Your task to perform on an android device: add a contact in the contacts app Image 0: 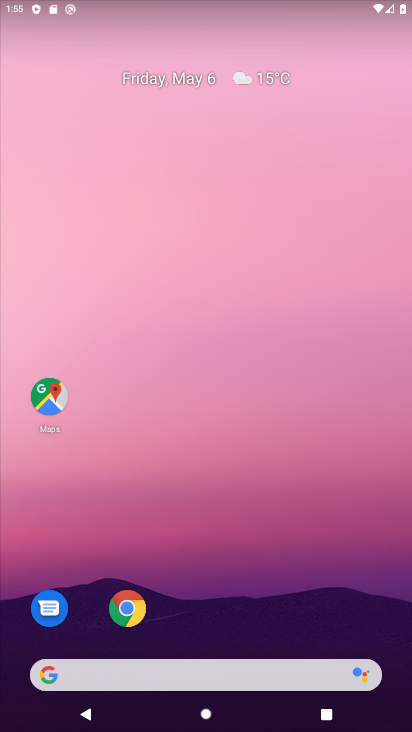
Step 0: drag from (247, 594) to (210, 101)
Your task to perform on an android device: add a contact in the contacts app Image 1: 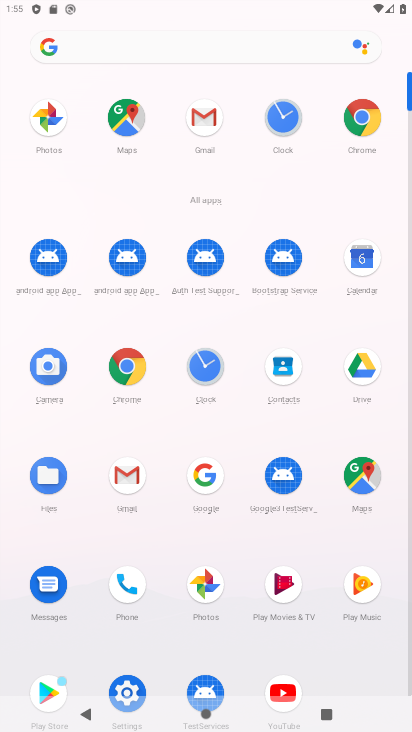
Step 1: click (283, 367)
Your task to perform on an android device: add a contact in the contacts app Image 2: 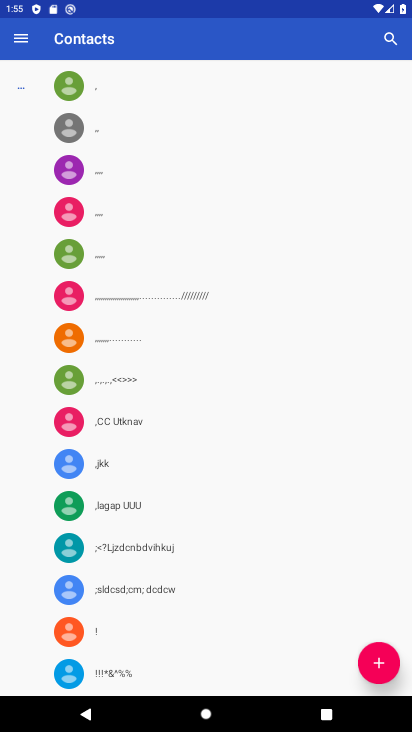
Step 2: click (381, 664)
Your task to perform on an android device: add a contact in the contacts app Image 3: 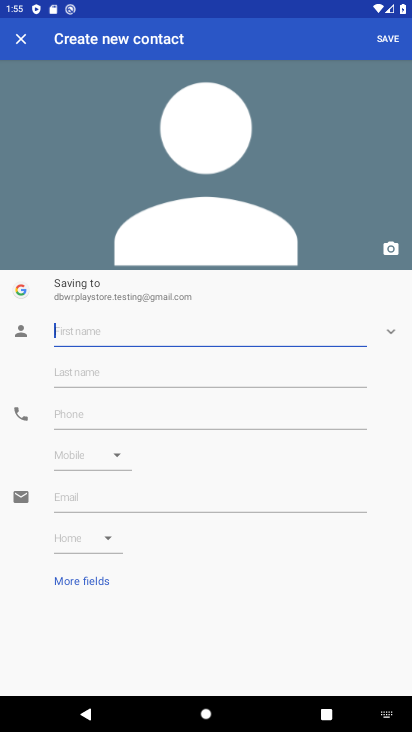
Step 3: click (168, 335)
Your task to perform on an android device: add a contact in the contacts app Image 4: 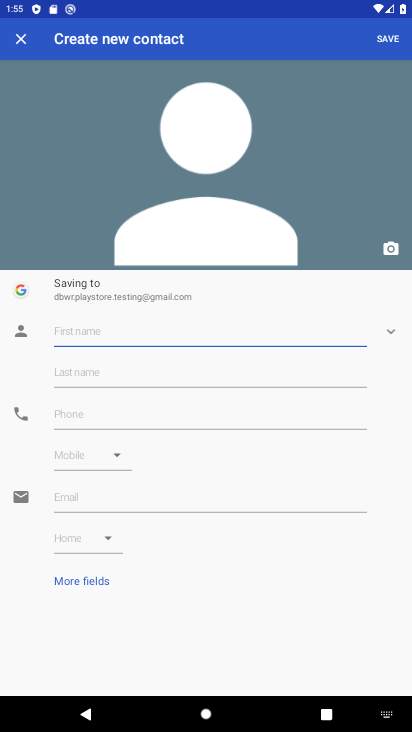
Step 4: type "Chandravibhushan"
Your task to perform on an android device: add a contact in the contacts app Image 5: 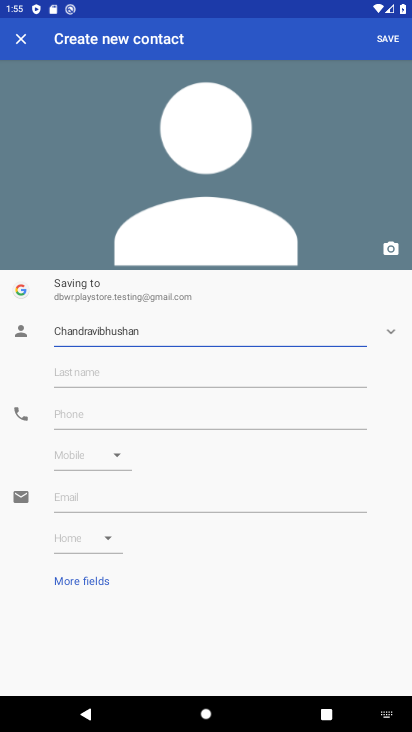
Step 5: click (198, 367)
Your task to perform on an android device: add a contact in the contacts app Image 6: 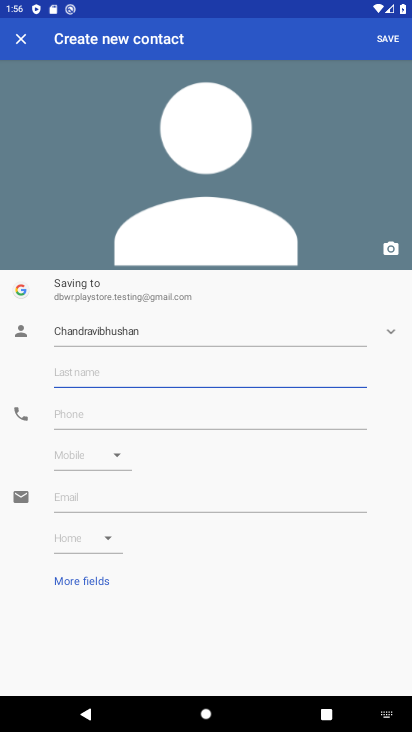
Step 6: type "Bhuvneshwar"
Your task to perform on an android device: add a contact in the contacts app Image 7: 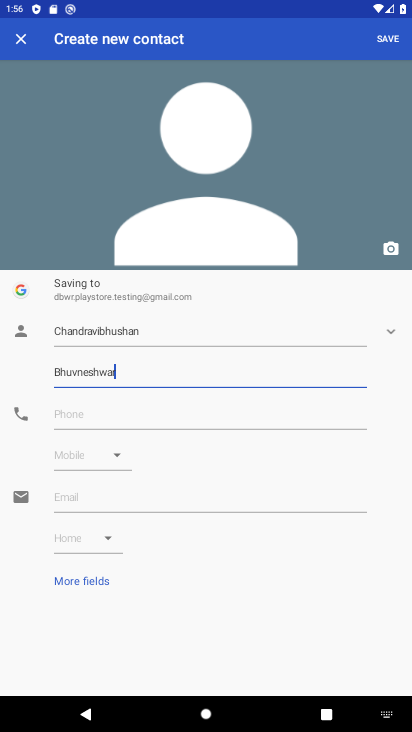
Step 7: click (153, 425)
Your task to perform on an android device: add a contact in the contacts app Image 8: 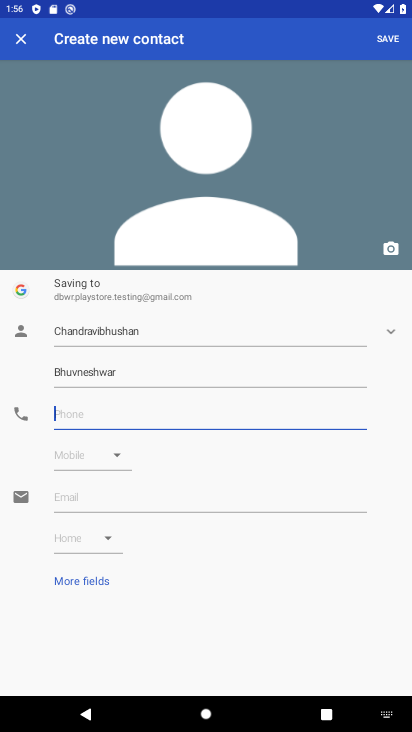
Step 8: type "0996688442211"
Your task to perform on an android device: add a contact in the contacts app Image 9: 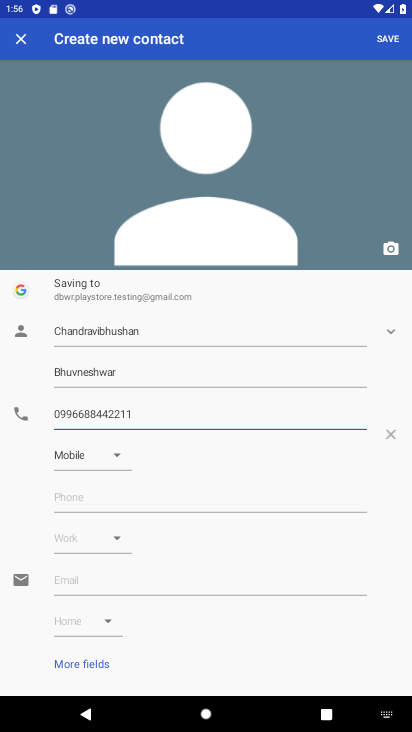
Step 9: click (400, 38)
Your task to perform on an android device: add a contact in the contacts app Image 10: 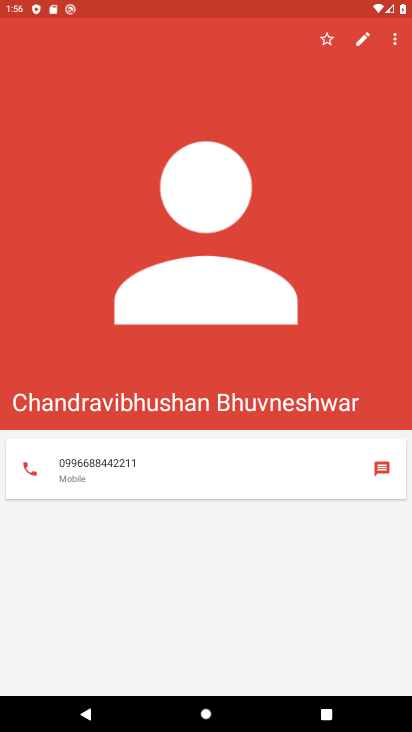
Step 10: task complete